Your task to perform on an android device: turn on the 12-hour format for clock Image 0: 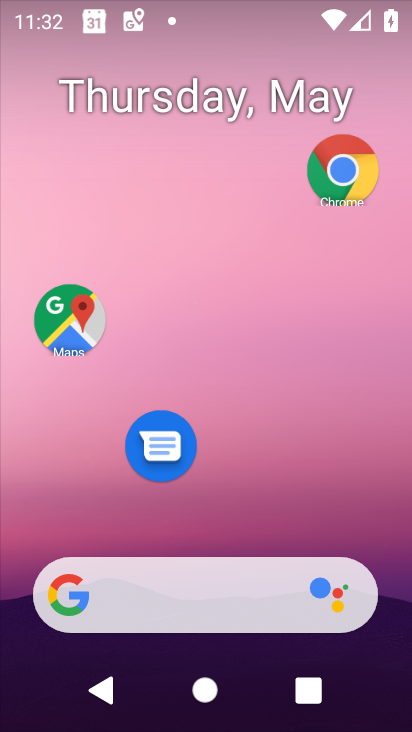
Step 0: drag from (276, 620) to (254, 7)
Your task to perform on an android device: turn on the 12-hour format for clock Image 1: 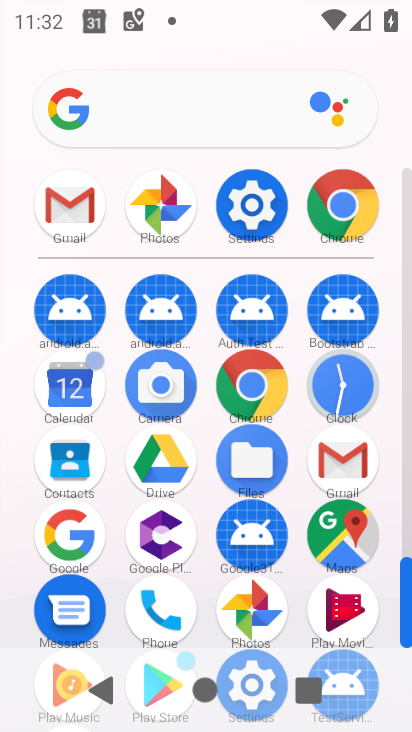
Step 1: click (329, 384)
Your task to perform on an android device: turn on the 12-hour format for clock Image 2: 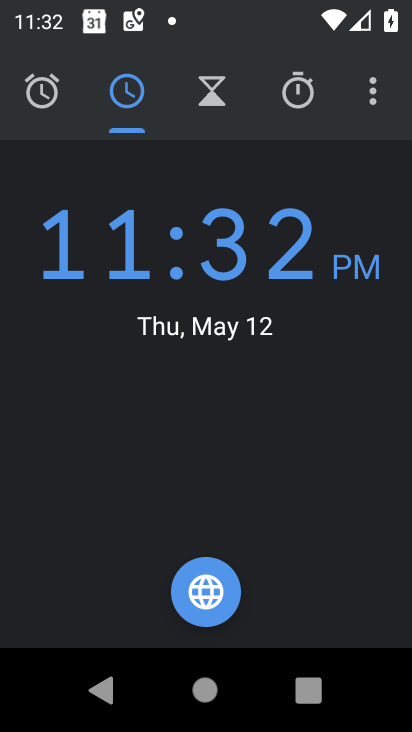
Step 2: click (372, 93)
Your task to perform on an android device: turn on the 12-hour format for clock Image 3: 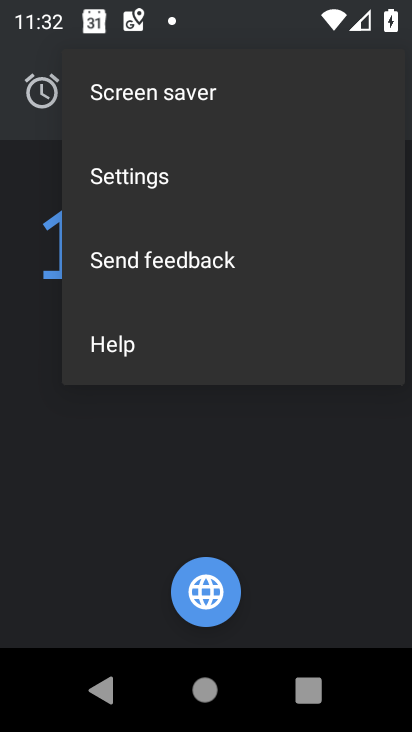
Step 3: click (215, 183)
Your task to perform on an android device: turn on the 12-hour format for clock Image 4: 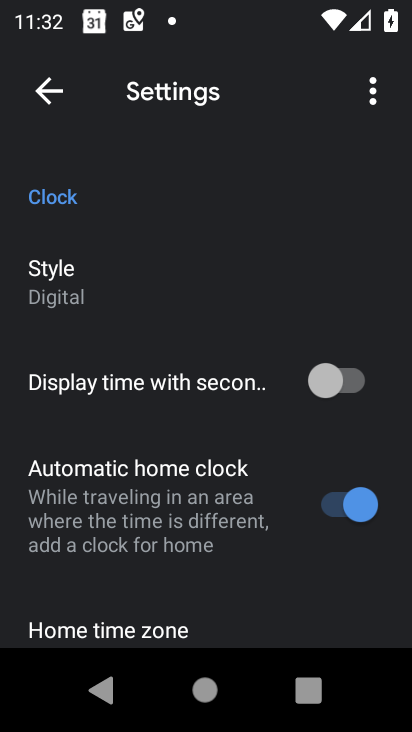
Step 4: drag from (241, 626) to (243, 149)
Your task to perform on an android device: turn on the 12-hour format for clock Image 5: 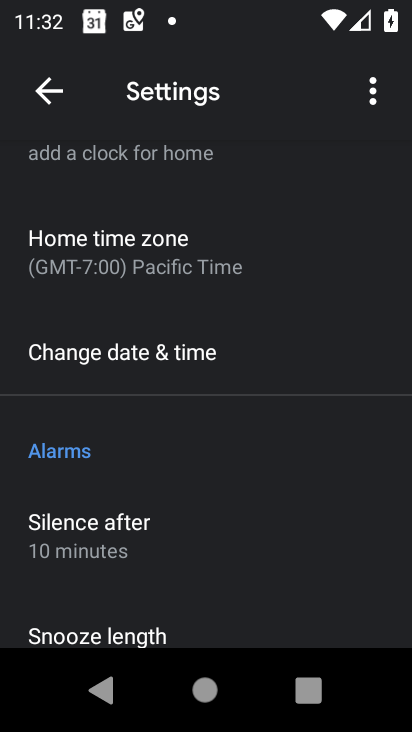
Step 5: click (179, 365)
Your task to perform on an android device: turn on the 12-hour format for clock Image 6: 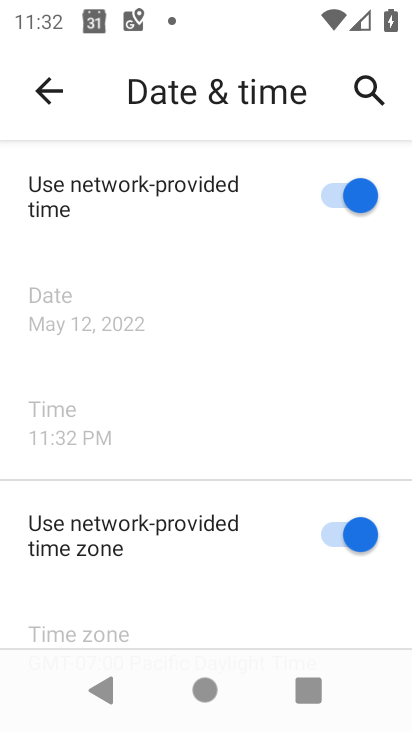
Step 6: drag from (279, 594) to (324, 110)
Your task to perform on an android device: turn on the 12-hour format for clock Image 7: 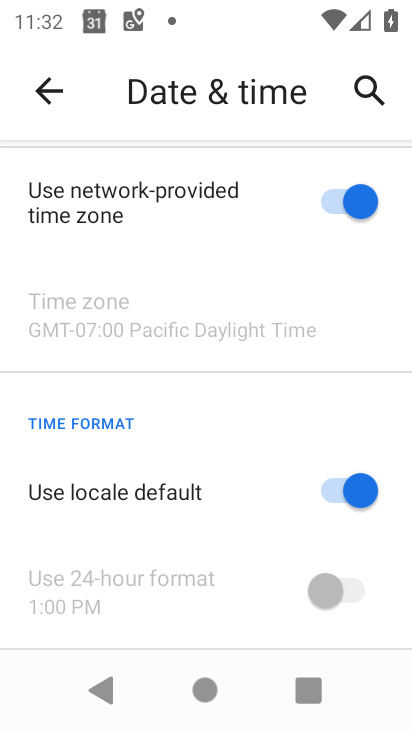
Step 7: click (328, 497)
Your task to perform on an android device: turn on the 12-hour format for clock Image 8: 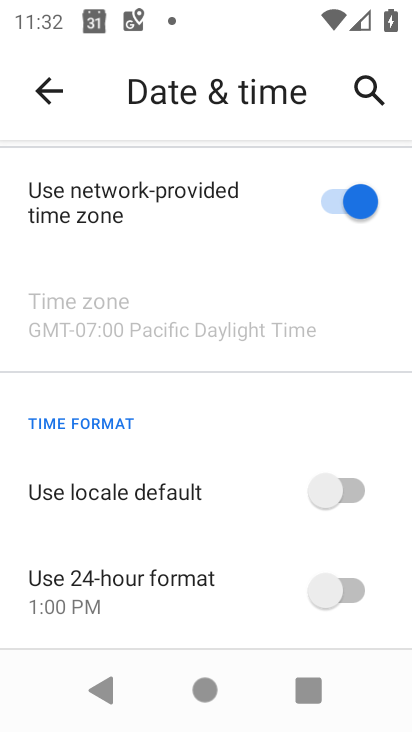
Step 8: task complete